Your task to perform on an android device: search for starred emails in the gmail app Image 0: 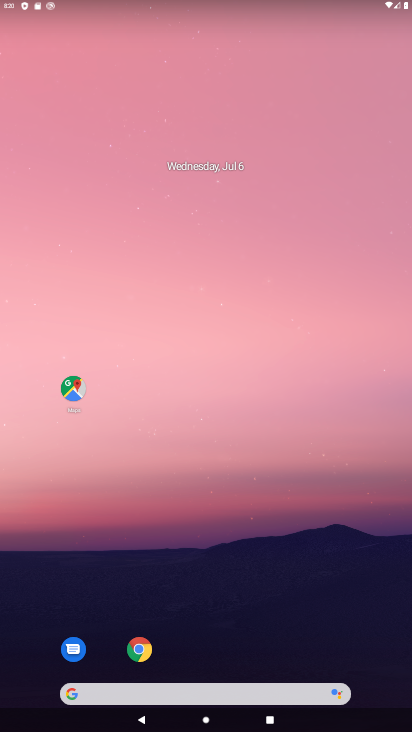
Step 0: drag from (294, 585) to (121, 100)
Your task to perform on an android device: search for starred emails in the gmail app Image 1: 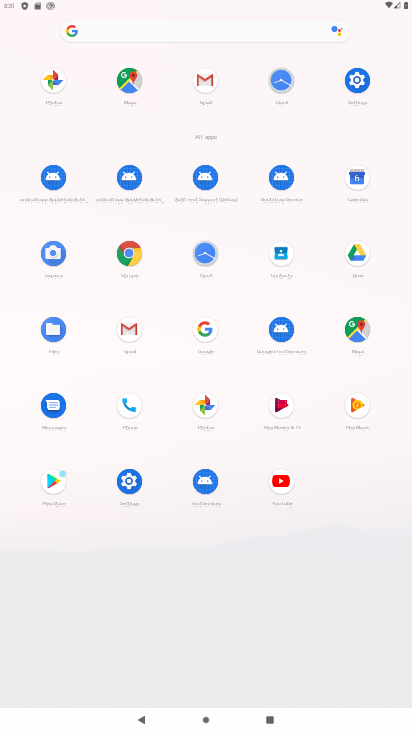
Step 1: click (116, 327)
Your task to perform on an android device: search for starred emails in the gmail app Image 2: 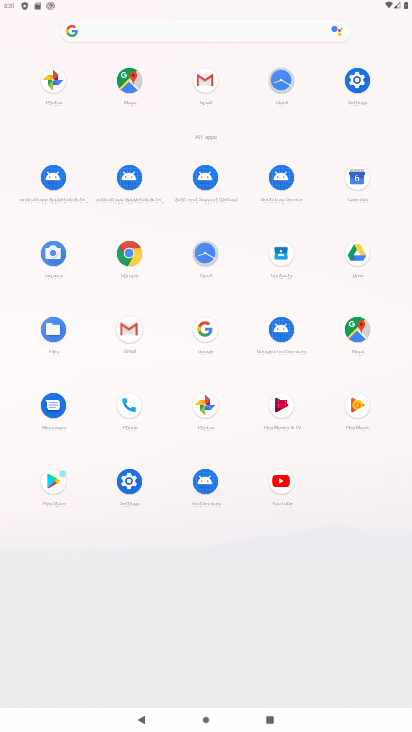
Step 2: click (126, 327)
Your task to perform on an android device: search for starred emails in the gmail app Image 3: 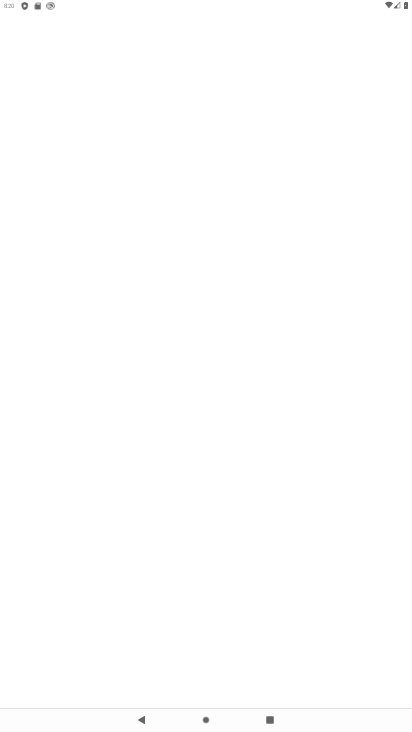
Step 3: click (129, 328)
Your task to perform on an android device: search for starred emails in the gmail app Image 4: 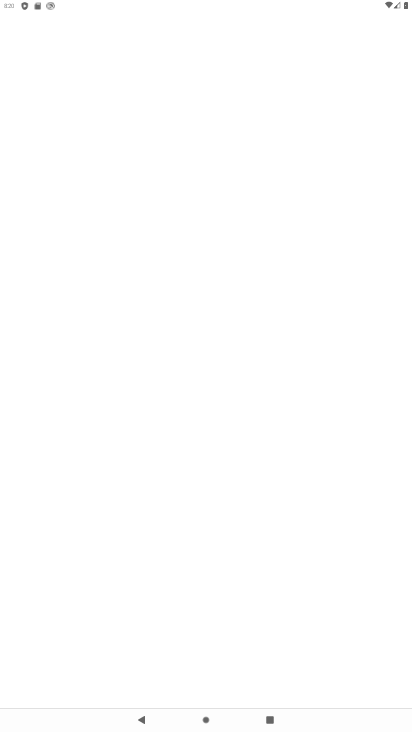
Step 4: click (131, 328)
Your task to perform on an android device: search for starred emails in the gmail app Image 5: 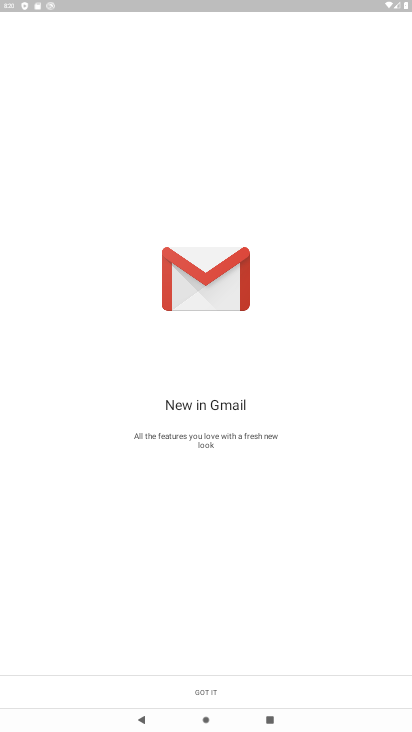
Step 5: click (211, 700)
Your task to perform on an android device: search for starred emails in the gmail app Image 6: 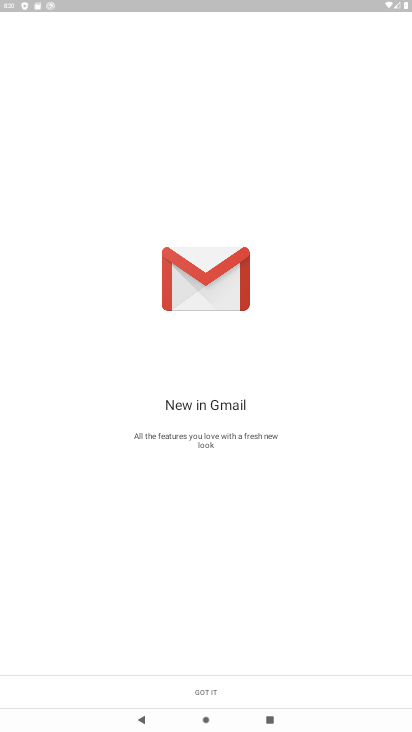
Step 6: click (219, 694)
Your task to perform on an android device: search for starred emails in the gmail app Image 7: 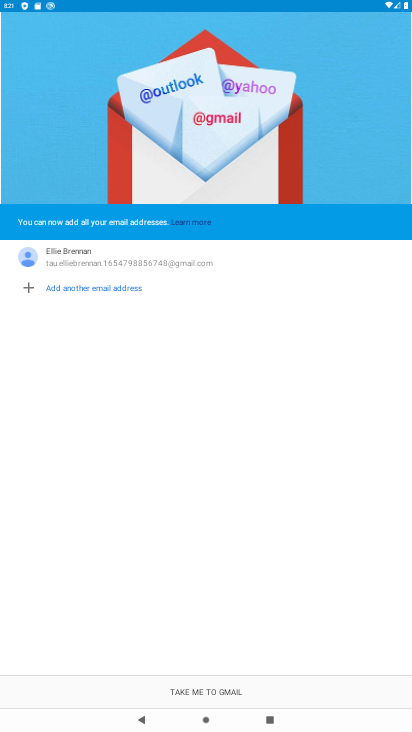
Step 7: click (239, 686)
Your task to perform on an android device: search for starred emails in the gmail app Image 8: 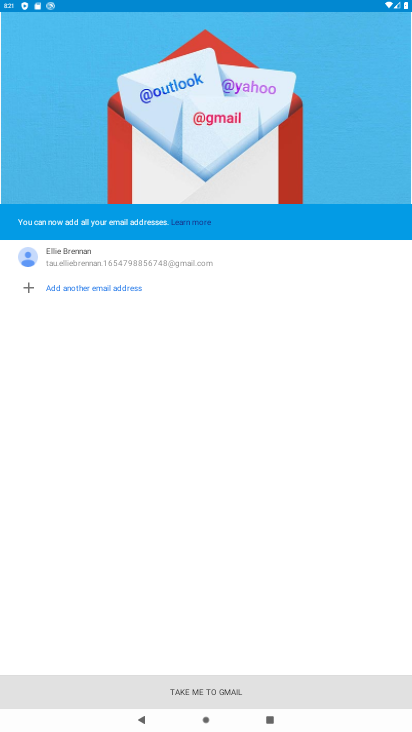
Step 8: click (244, 684)
Your task to perform on an android device: search for starred emails in the gmail app Image 9: 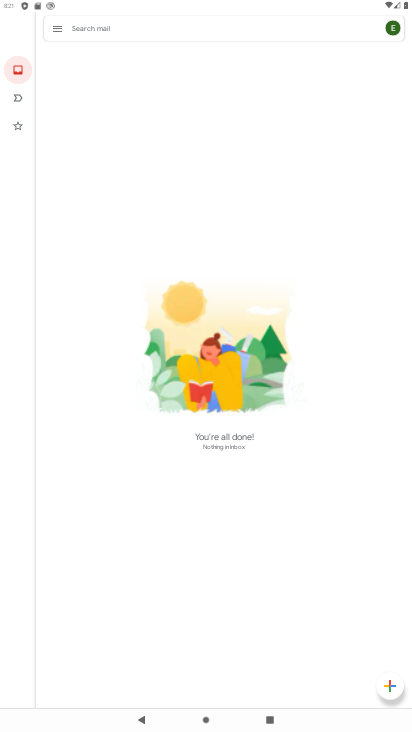
Step 9: click (54, 25)
Your task to perform on an android device: search for starred emails in the gmail app Image 10: 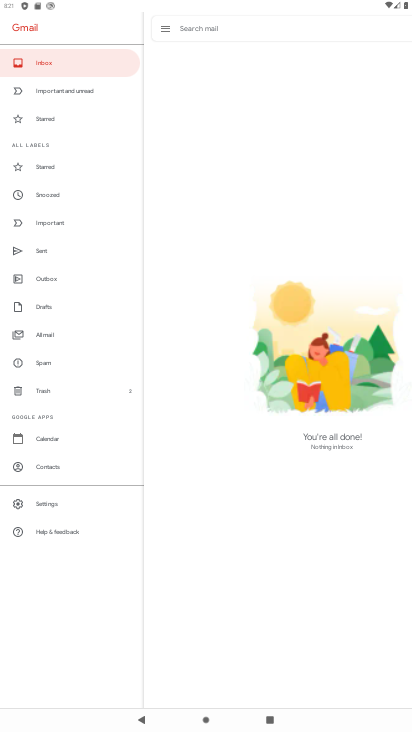
Step 10: click (47, 331)
Your task to perform on an android device: search for starred emails in the gmail app Image 11: 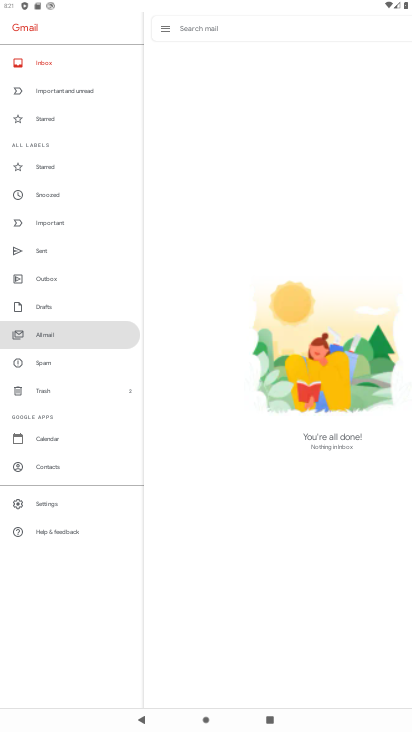
Step 11: click (50, 337)
Your task to perform on an android device: search for starred emails in the gmail app Image 12: 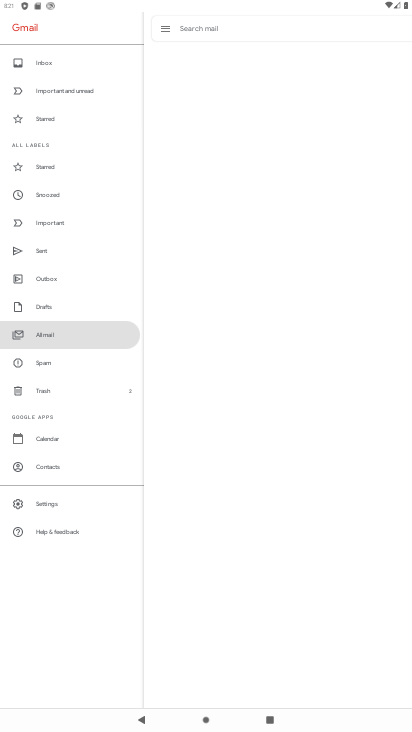
Step 12: click (53, 338)
Your task to perform on an android device: search for starred emails in the gmail app Image 13: 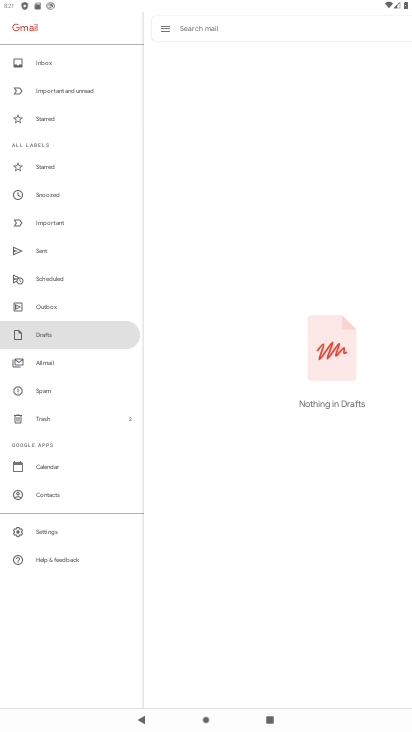
Step 13: click (49, 365)
Your task to perform on an android device: search for starred emails in the gmail app Image 14: 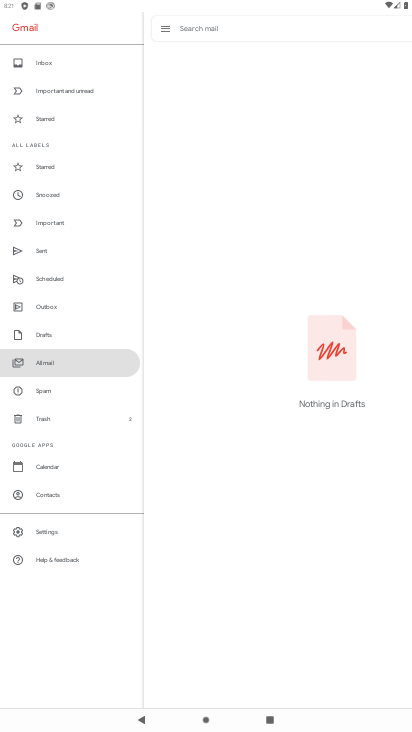
Step 14: click (49, 364)
Your task to perform on an android device: search for starred emails in the gmail app Image 15: 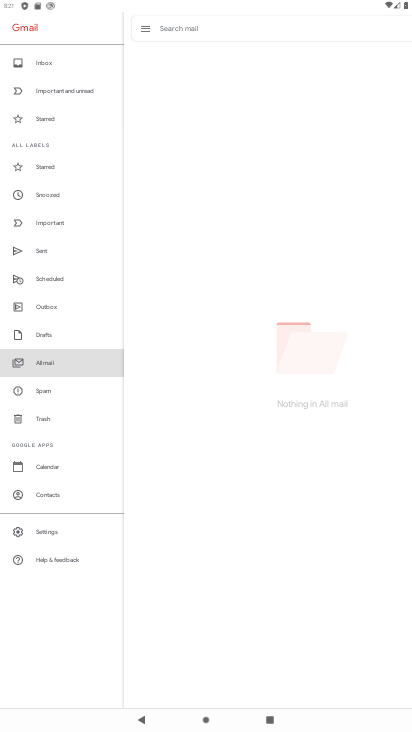
Step 15: click (49, 364)
Your task to perform on an android device: search for starred emails in the gmail app Image 16: 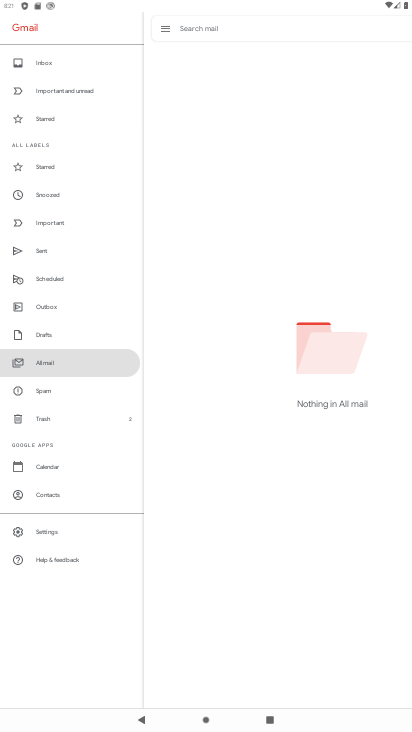
Step 16: click (49, 364)
Your task to perform on an android device: search for starred emails in the gmail app Image 17: 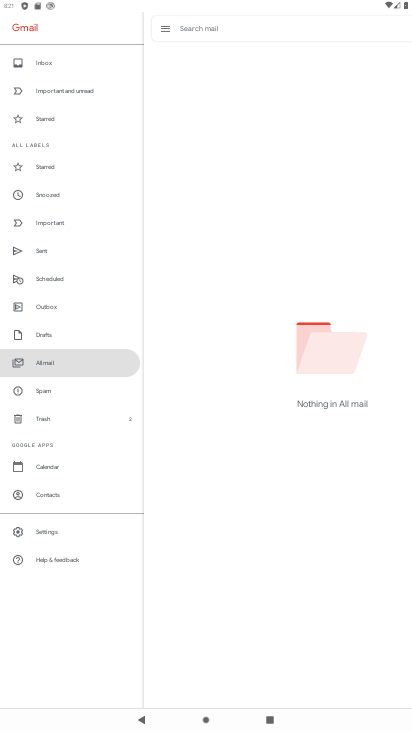
Step 17: click (47, 193)
Your task to perform on an android device: search for starred emails in the gmail app Image 18: 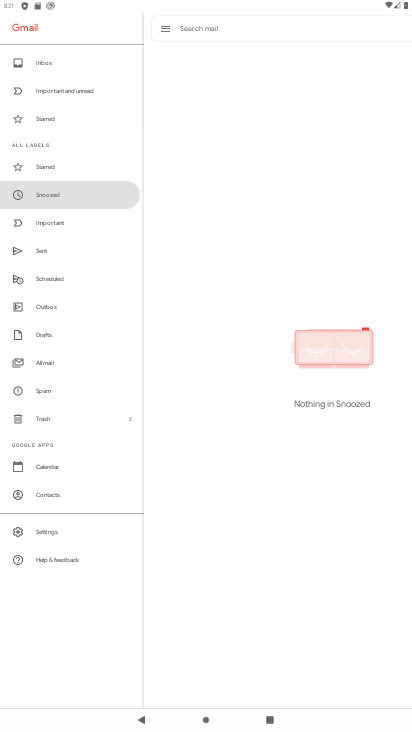
Step 18: click (50, 171)
Your task to perform on an android device: search for starred emails in the gmail app Image 19: 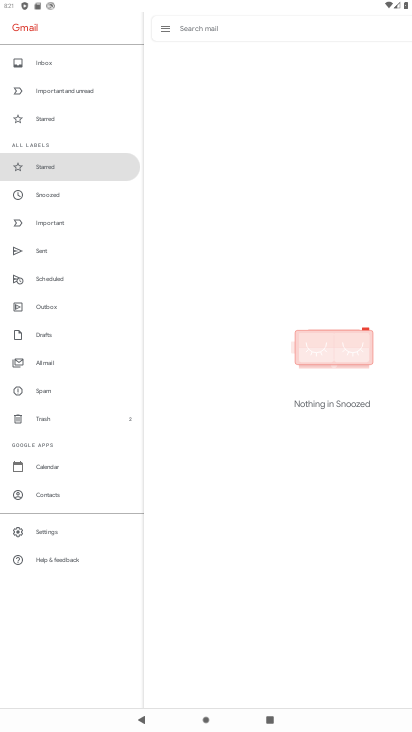
Step 19: click (55, 168)
Your task to perform on an android device: search for starred emails in the gmail app Image 20: 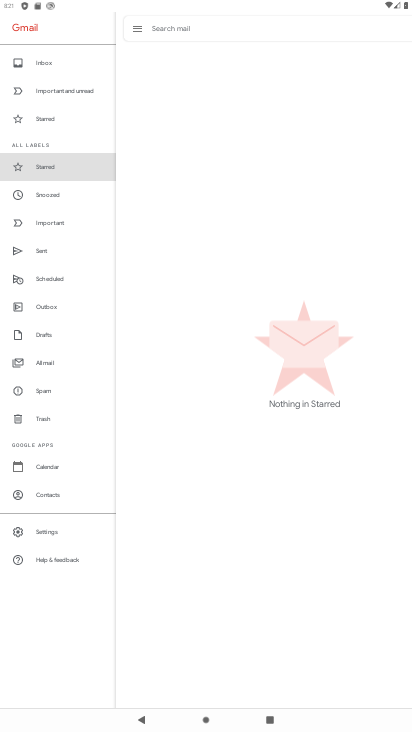
Step 20: click (55, 168)
Your task to perform on an android device: search for starred emails in the gmail app Image 21: 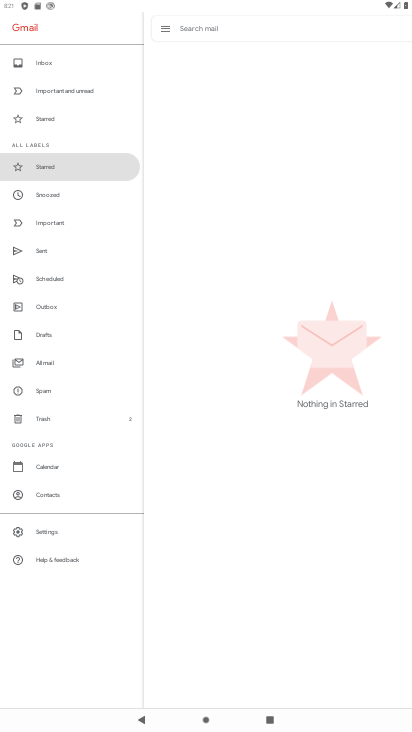
Step 21: task complete